Your task to perform on an android device: Toggle the flashlight Image 0: 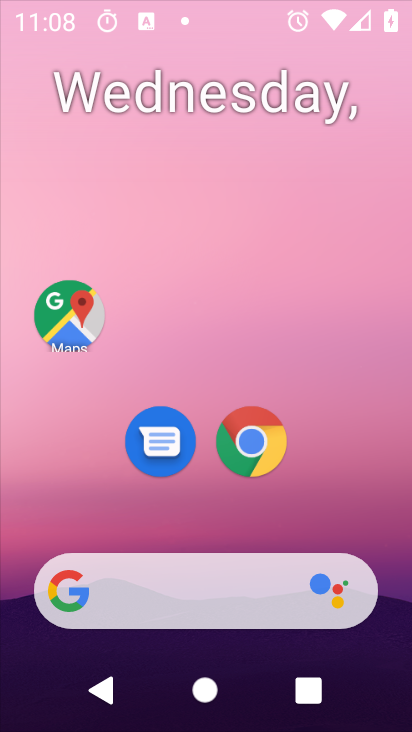
Step 0: drag from (329, 11) to (20, 315)
Your task to perform on an android device: Toggle the flashlight Image 1: 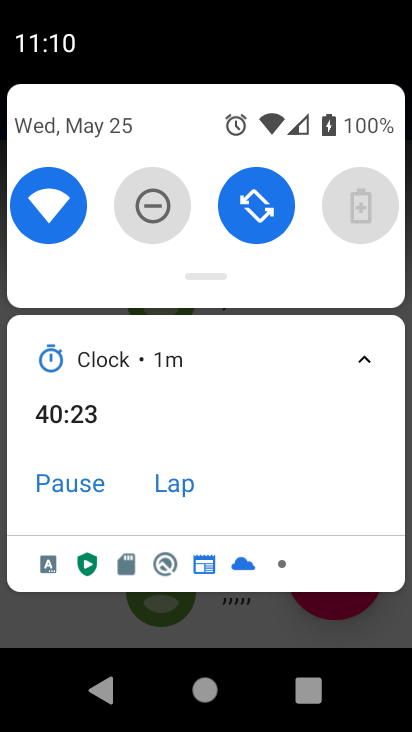
Step 1: press home button
Your task to perform on an android device: Toggle the flashlight Image 2: 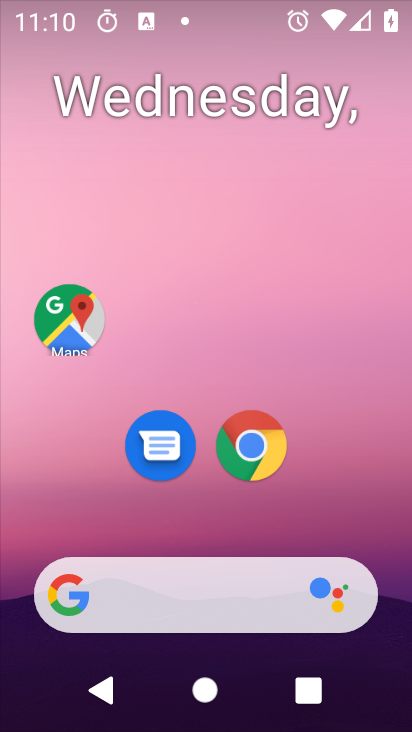
Step 2: drag from (353, 409) to (404, 69)
Your task to perform on an android device: Toggle the flashlight Image 3: 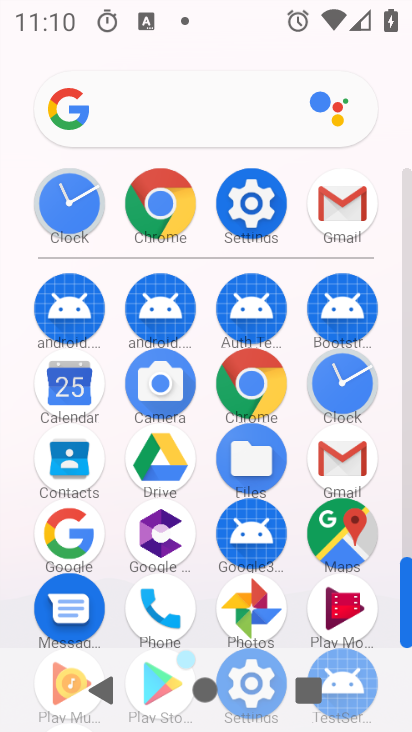
Step 3: click (266, 213)
Your task to perform on an android device: Toggle the flashlight Image 4: 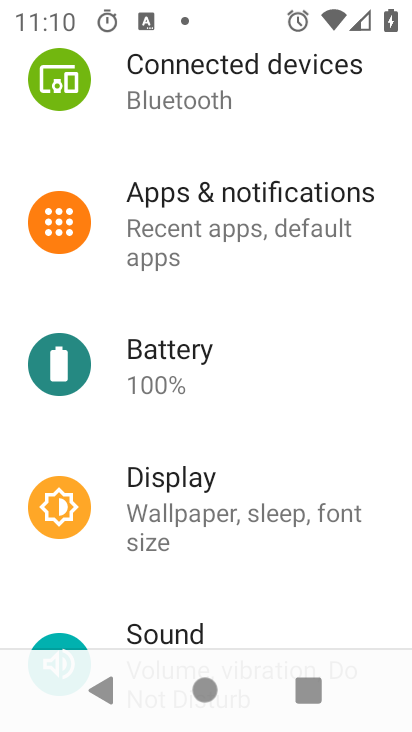
Step 4: task complete